Your task to perform on an android device: add a contact in the contacts app Image 0: 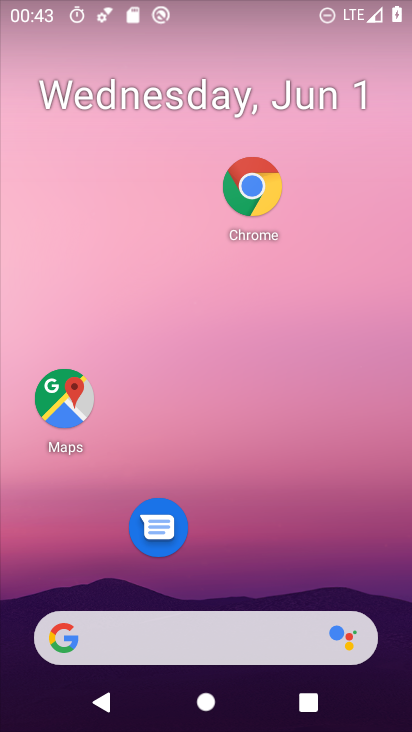
Step 0: drag from (240, 573) to (274, 246)
Your task to perform on an android device: add a contact in the contacts app Image 1: 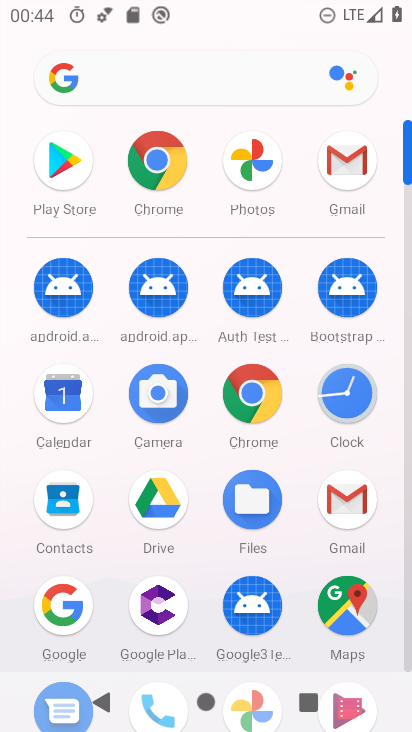
Step 1: click (56, 470)
Your task to perform on an android device: add a contact in the contacts app Image 2: 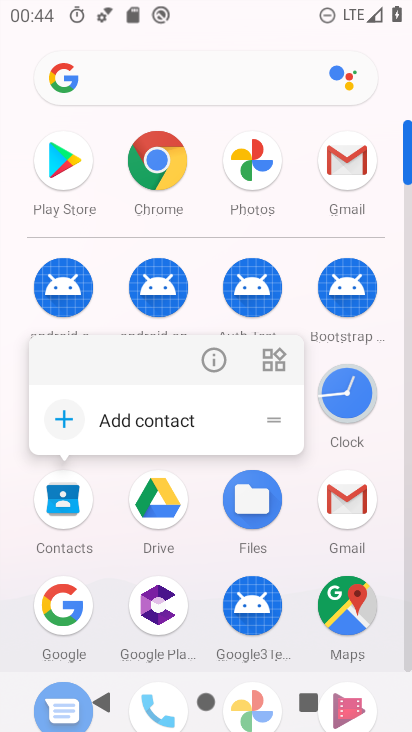
Step 2: click (225, 362)
Your task to perform on an android device: add a contact in the contacts app Image 3: 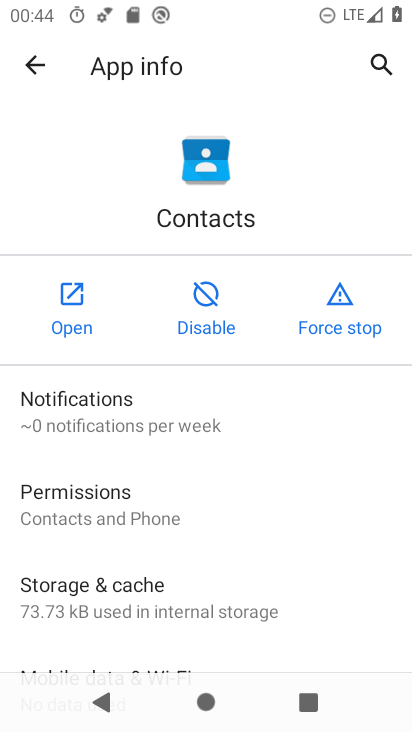
Step 3: click (63, 323)
Your task to perform on an android device: add a contact in the contacts app Image 4: 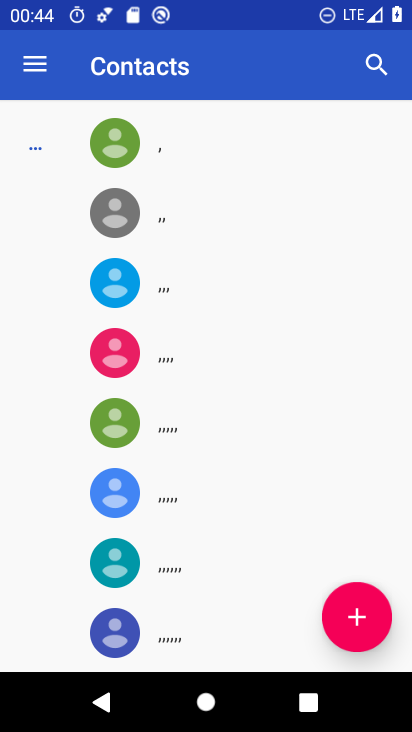
Step 4: click (330, 610)
Your task to perform on an android device: add a contact in the contacts app Image 5: 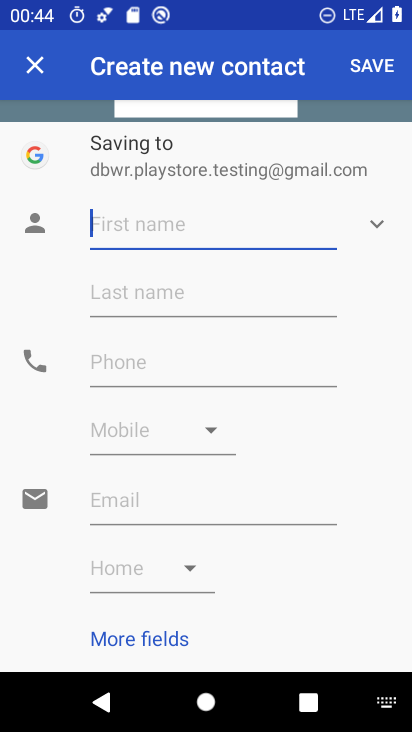
Step 5: click (107, 217)
Your task to perform on an android device: add a contact in the contacts app Image 6: 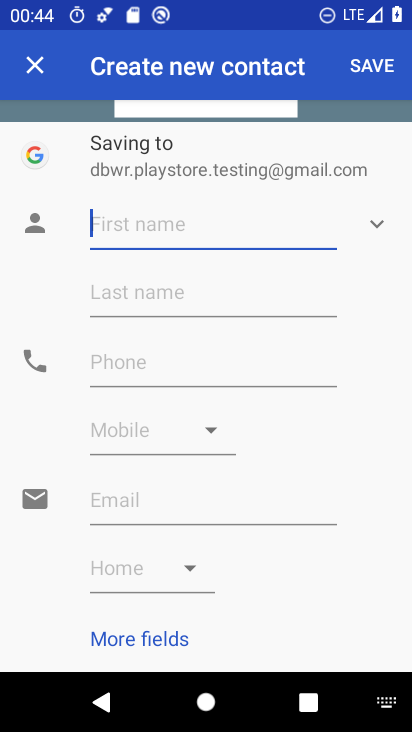
Step 6: type "nhjk"
Your task to perform on an android device: add a contact in the contacts app Image 7: 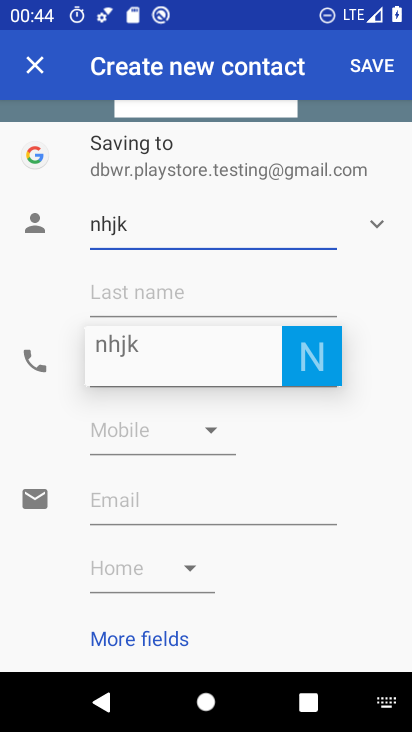
Step 7: type "g"
Your task to perform on an android device: add a contact in the contacts app Image 8: 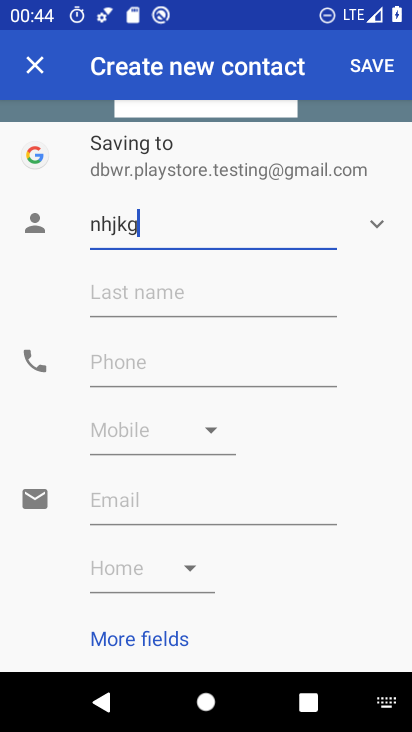
Step 8: click (385, 71)
Your task to perform on an android device: add a contact in the contacts app Image 9: 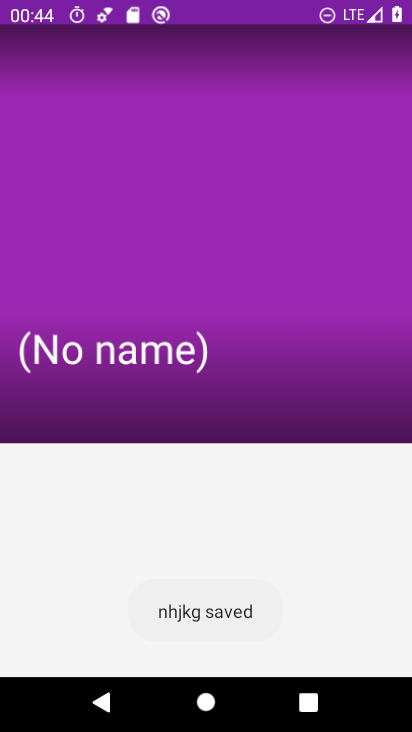
Step 9: task complete